Your task to perform on an android device: What's on my calendar tomorrow? Image 0: 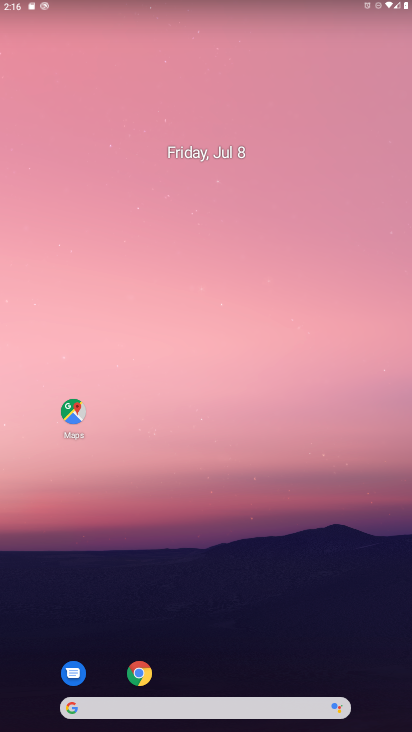
Step 0: drag from (403, 700) to (388, 309)
Your task to perform on an android device: What's on my calendar tomorrow? Image 1: 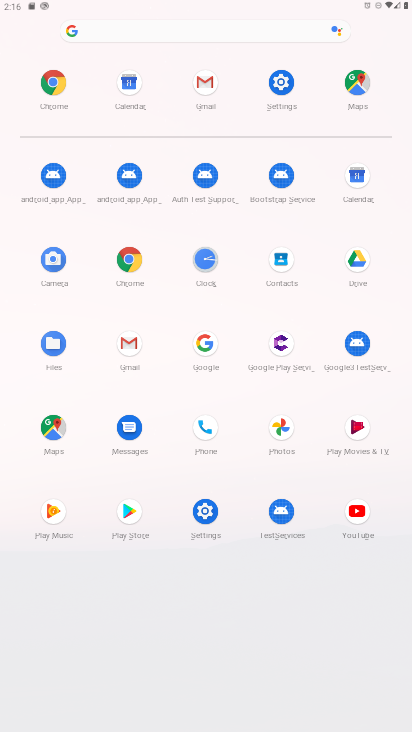
Step 1: click (350, 173)
Your task to perform on an android device: What's on my calendar tomorrow? Image 2: 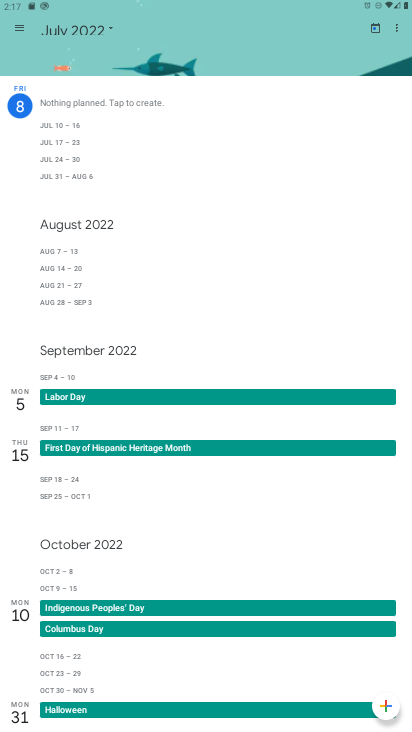
Step 2: click (110, 23)
Your task to perform on an android device: What's on my calendar tomorrow? Image 3: 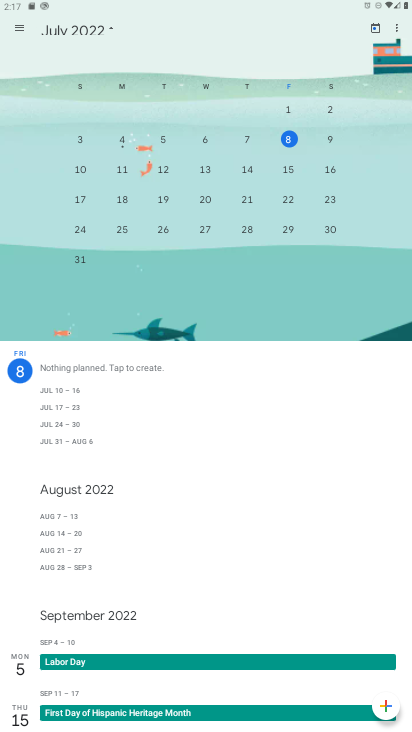
Step 3: click (323, 132)
Your task to perform on an android device: What's on my calendar tomorrow? Image 4: 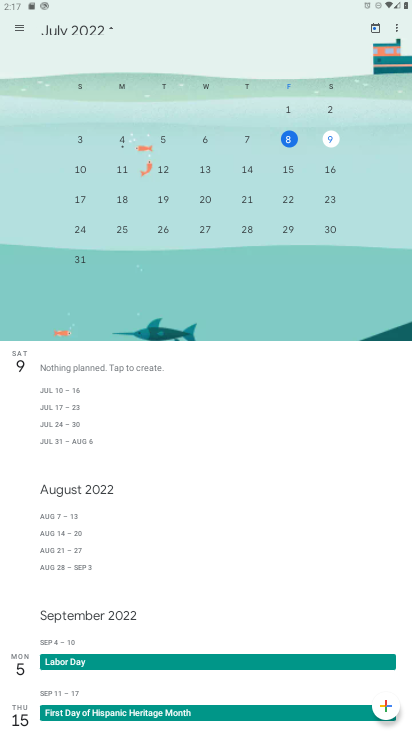
Step 4: task complete